Your task to perform on an android device: Open battery settings Image 0: 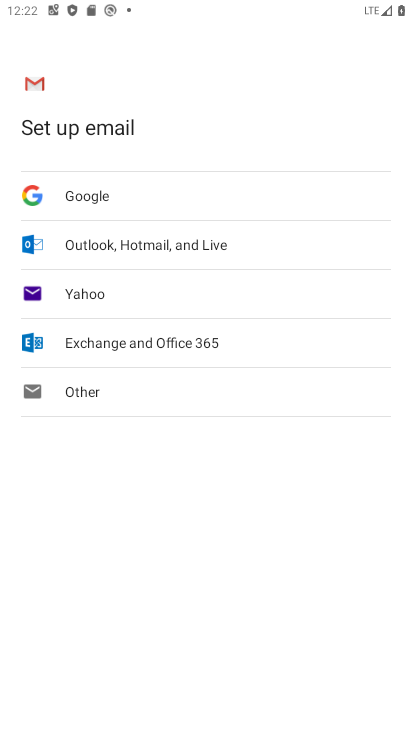
Step 0: press home button
Your task to perform on an android device: Open battery settings Image 1: 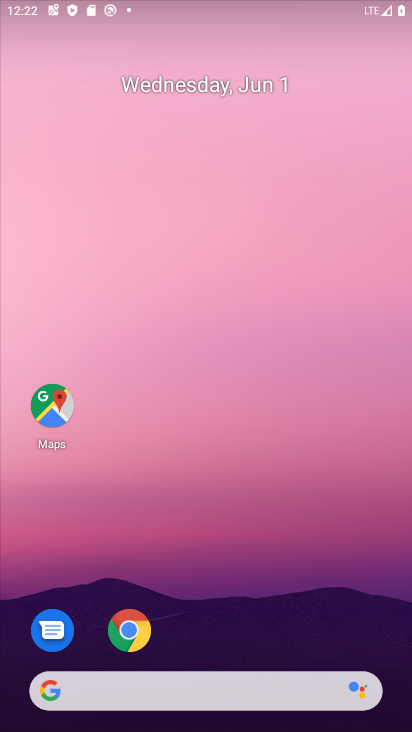
Step 1: drag from (386, 254) to (346, 3)
Your task to perform on an android device: Open battery settings Image 2: 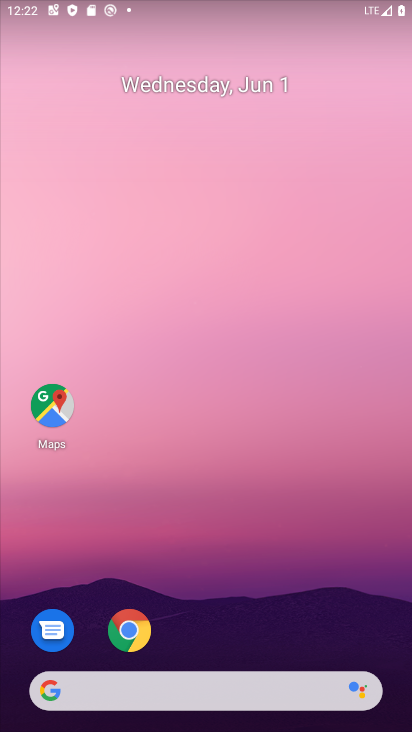
Step 2: drag from (272, 516) to (271, 72)
Your task to perform on an android device: Open battery settings Image 3: 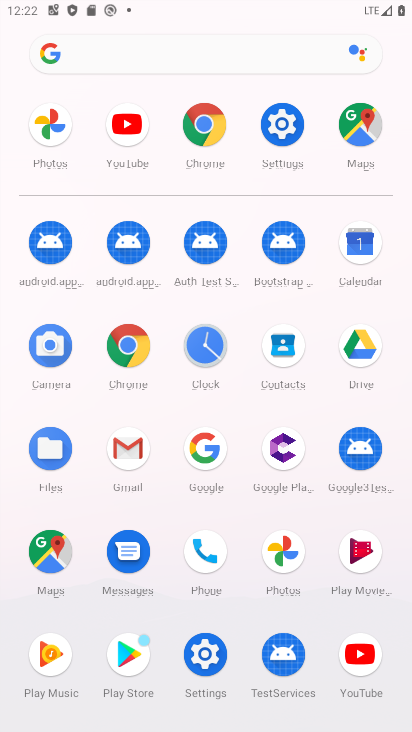
Step 3: click (282, 115)
Your task to perform on an android device: Open battery settings Image 4: 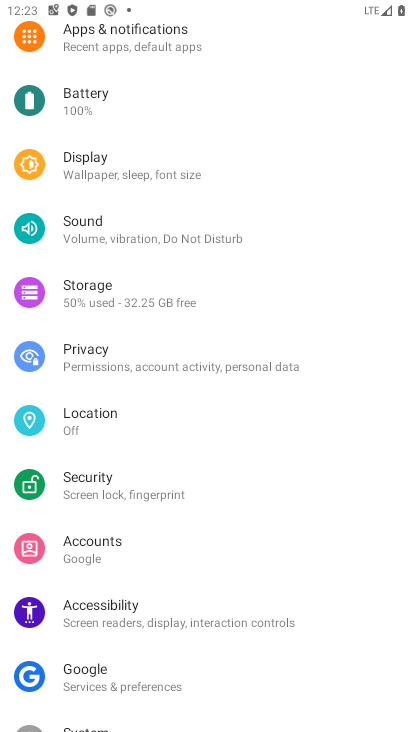
Step 4: drag from (318, 602) to (305, 481)
Your task to perform on an android device: Open battery settings Image 5: 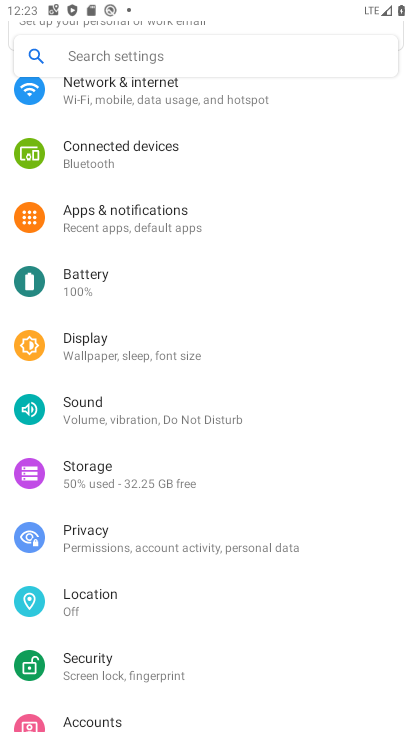
Step 5: click (109, 275)
Your task to perform on an android device: Open battery settings Image 6: 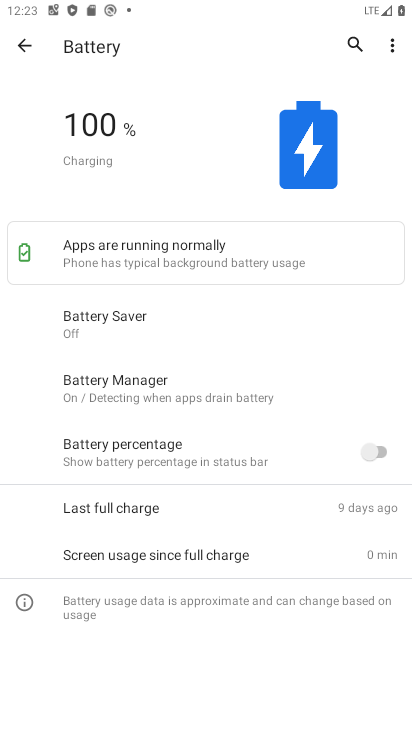
Step 6: task complete